Your task to perform on an android device: Open the web browser Image 0: 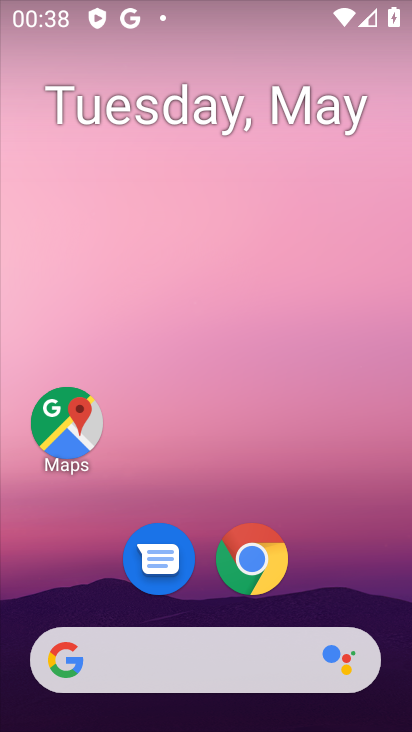
Step 0: click (270, 555)
Your task to perform on an android device: Open the web browser Image 1: 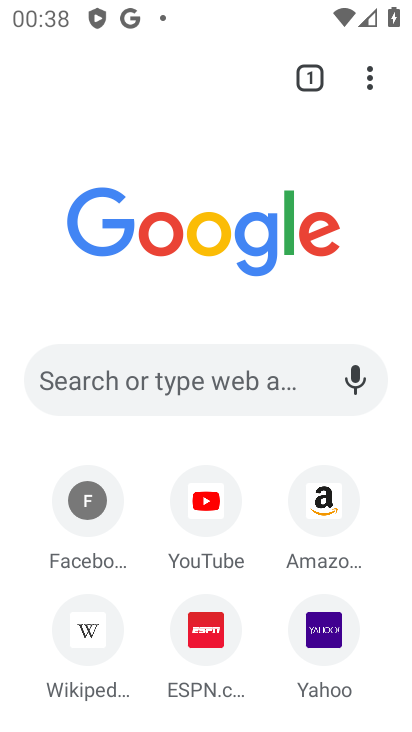
Step 1: task complete